Your task to perform on an android device: Open the phone app and click the voicemail tab. Image 0: 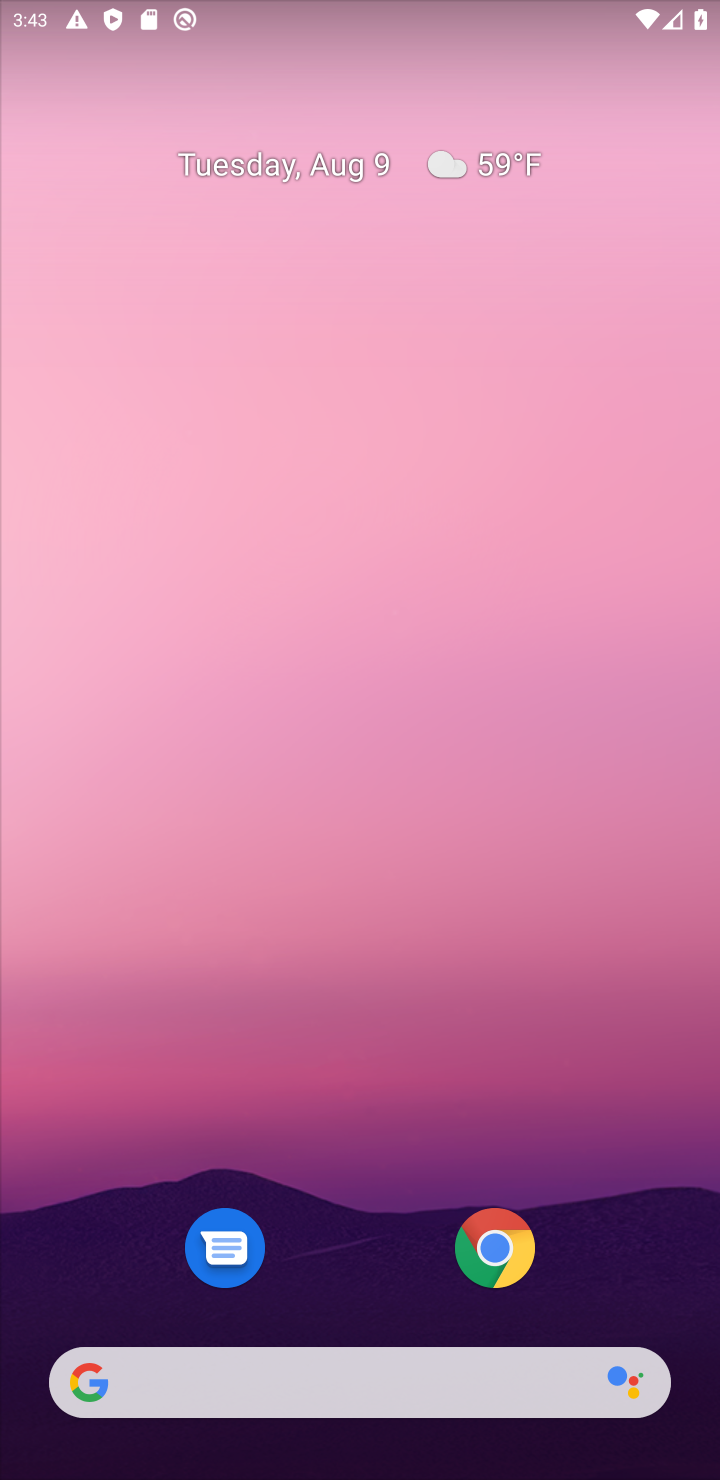
Step 0: drag from (289, 677) to (129, 0)
Your task to perform on an android device: Open the phone app and click the voicemail tab. Image 1: 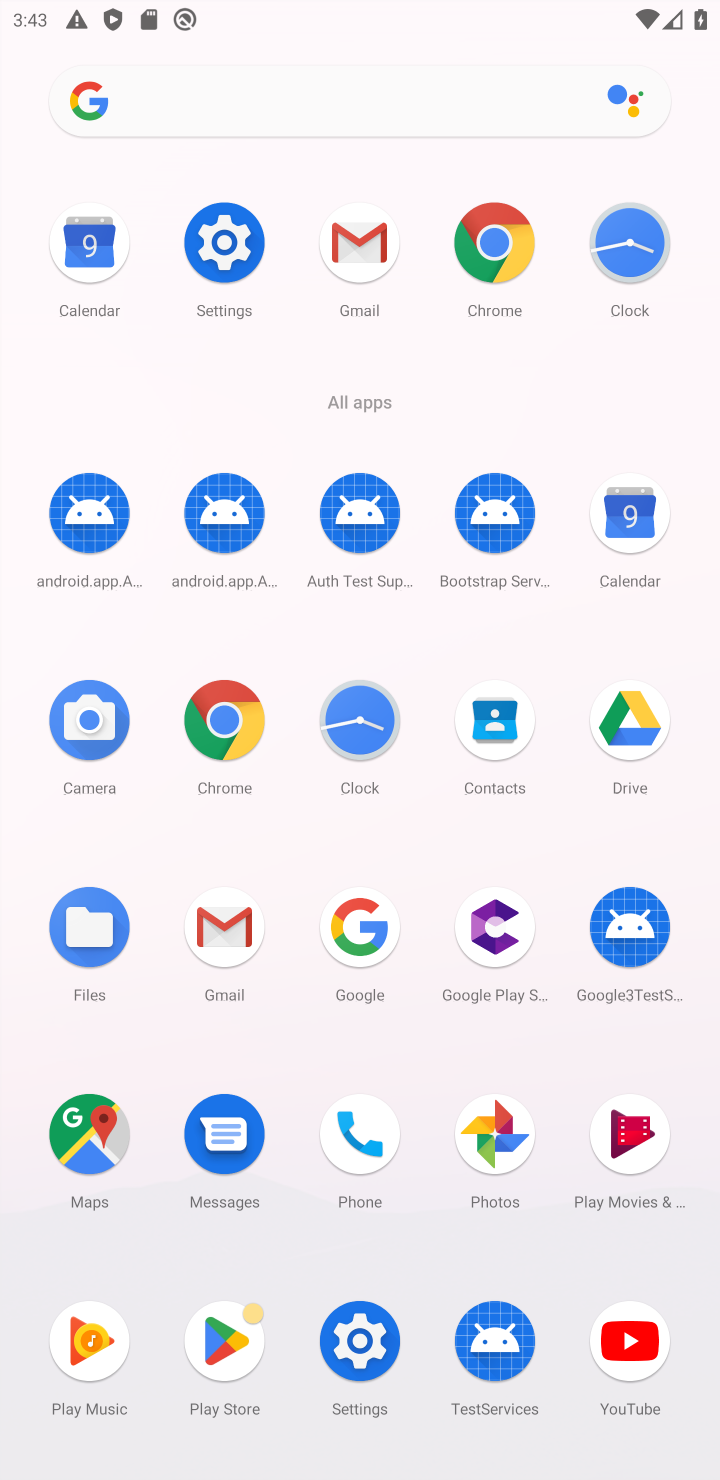
Step 1: click (356, 1146)
Your task to perform on an android device: Open the phone app and click the voicemail tab. Image 2: 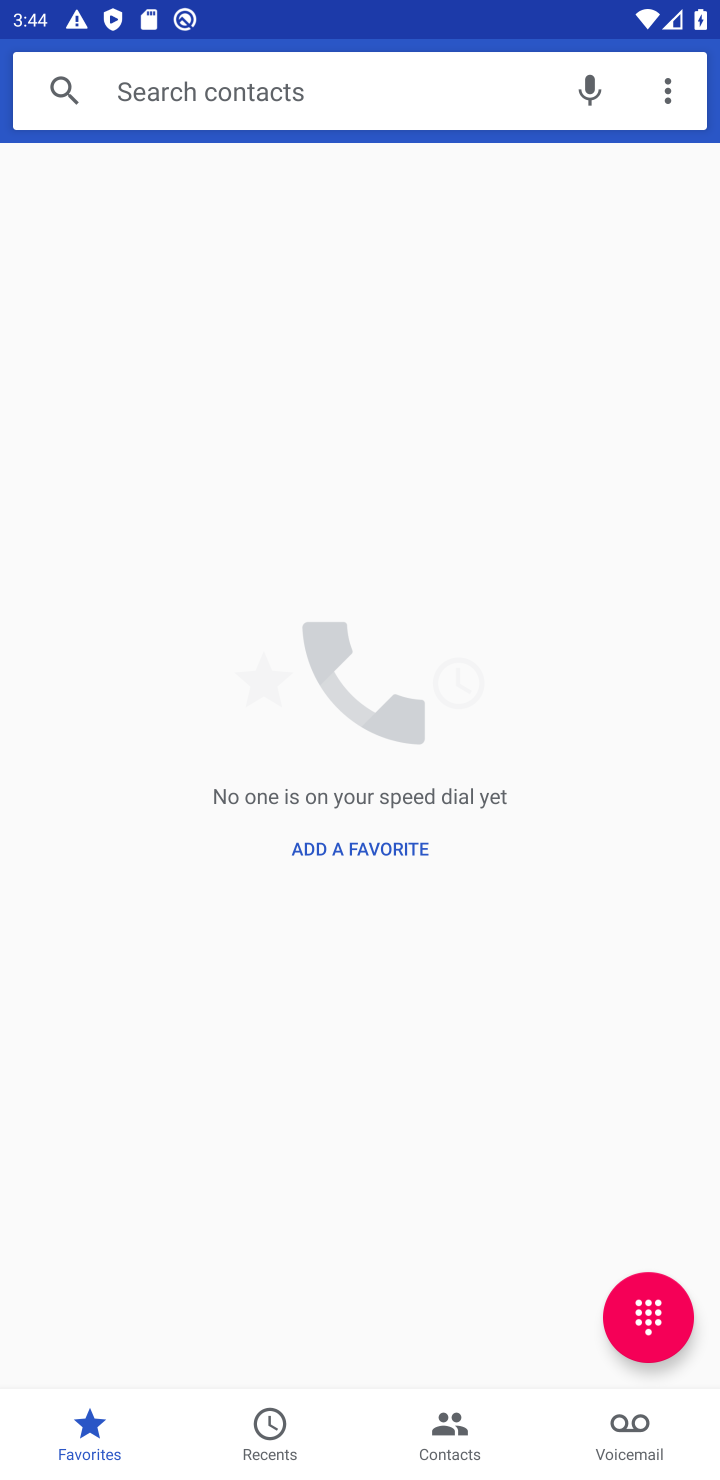
Step 2: click (634, 1465)
Your task to perform on an android device: Open the phone app and click the voicemail tab. Image 3: 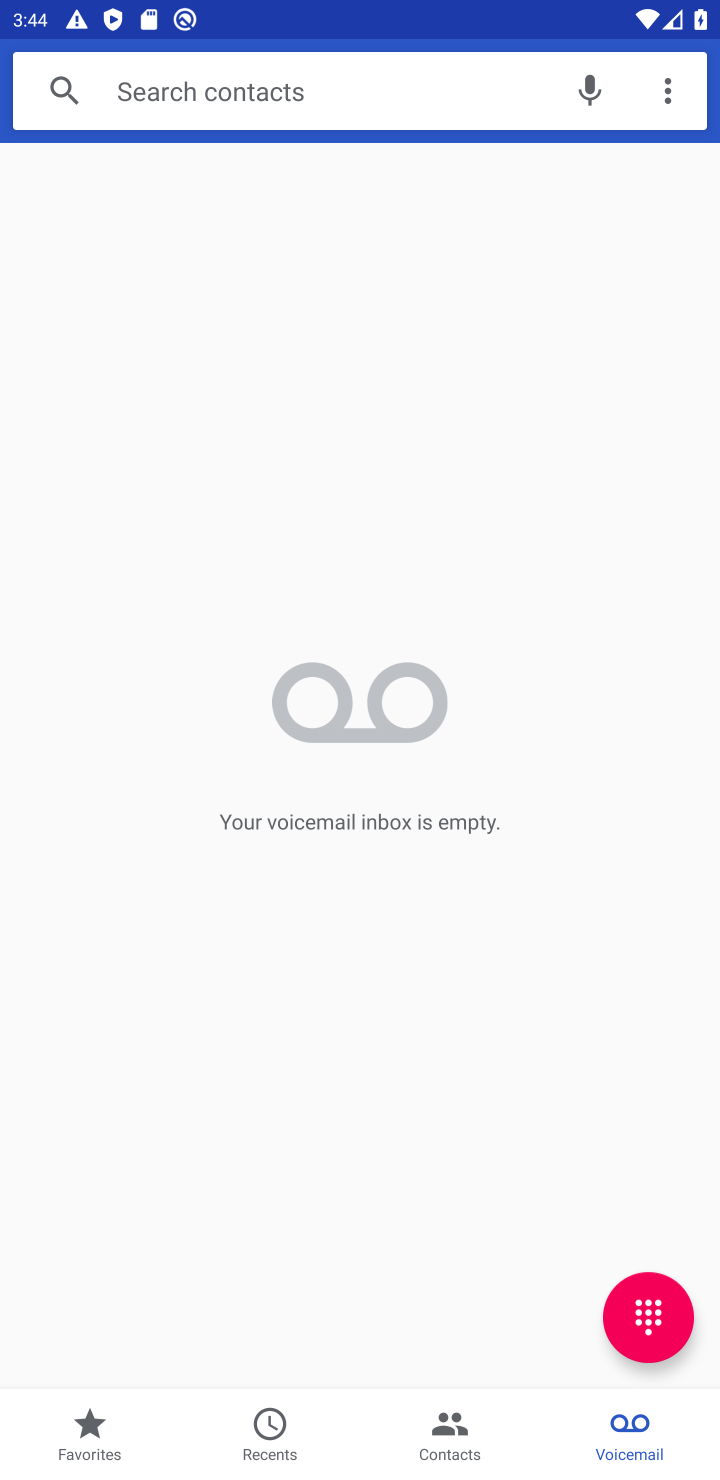
Step 3: task complete